Your task to perform on an android device: move an email to a new category in the gmail app Image 0: 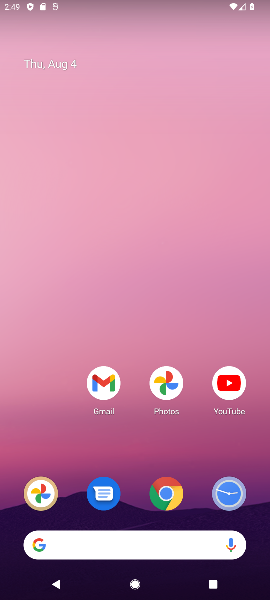
Step 0: click (107, 379)
Your task to perform on an android device: move an email to a new category in the gmail app Image 1: 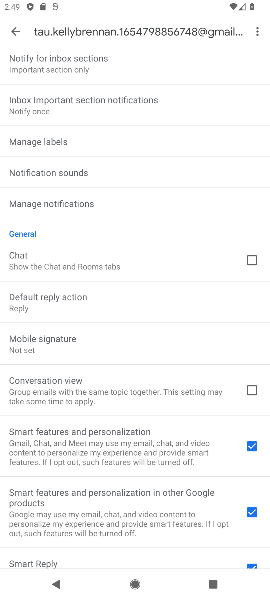
Step 1: click (15, 27)
Your task to perform on an android device: move an email to a new category in the gmail app Image 2: 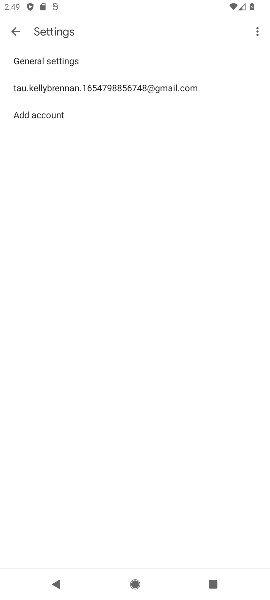
Step 2: click (15, 27)
Your task to perform on an android device: move an email to a new category in the gmail app Image 3: 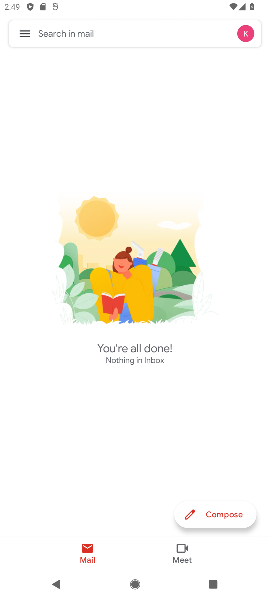
Step 3: task complete